Your task to perform on an android device: refresh tabs in the chrome app Image 0: 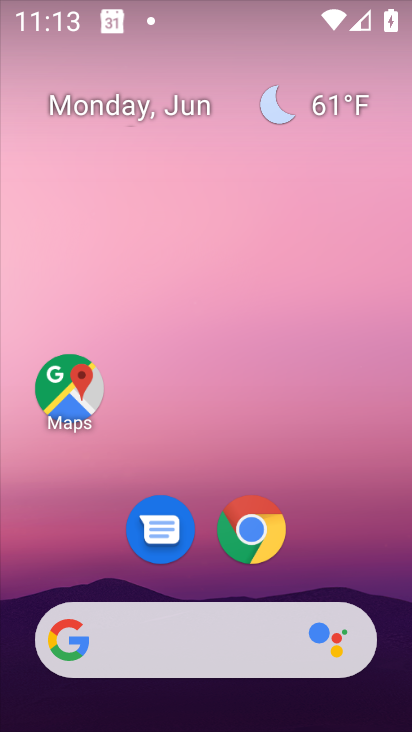
Step 0: click (263, 542)
Your task to perform on an android device: refresh tabs in the chrome app Image 1: 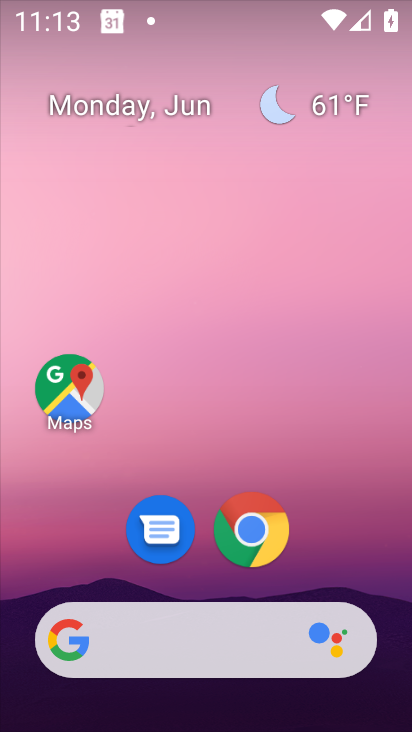
Step 1: click (263, 542)
Your task to perform on an android device: refresh tabs in the chrome app Image 2: 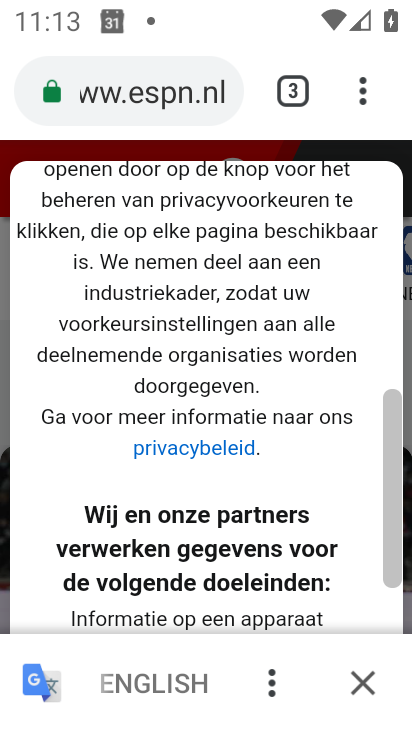
Step 2: task complete